Your task to perform on an android device: delete the emails in spam in the gmail app Image 0: 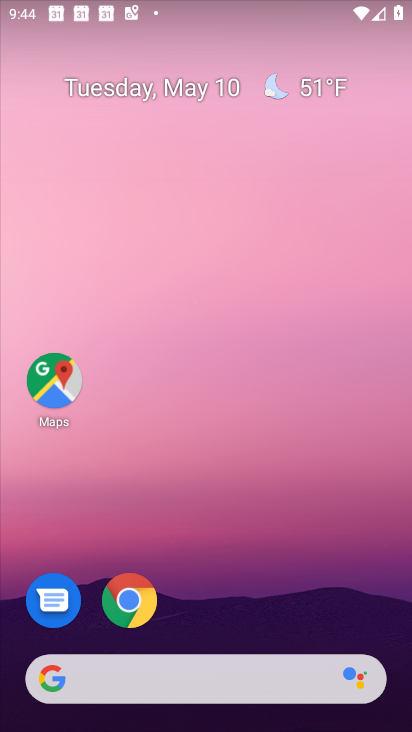
Step 0: drag from (221, 632) to (259, 7)
Your task to perform on an android device: delete the emails in spam in the gmail app Image 1: 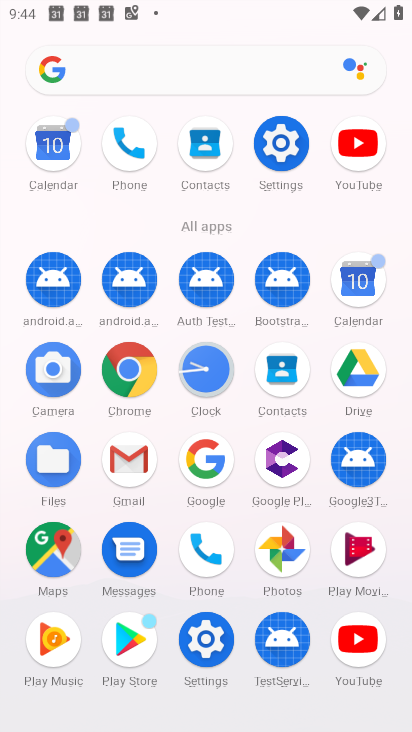
Step 1: click (115, 465)
Your task to perform on an android device: delete the emails in spam in the gmail app Image 2: 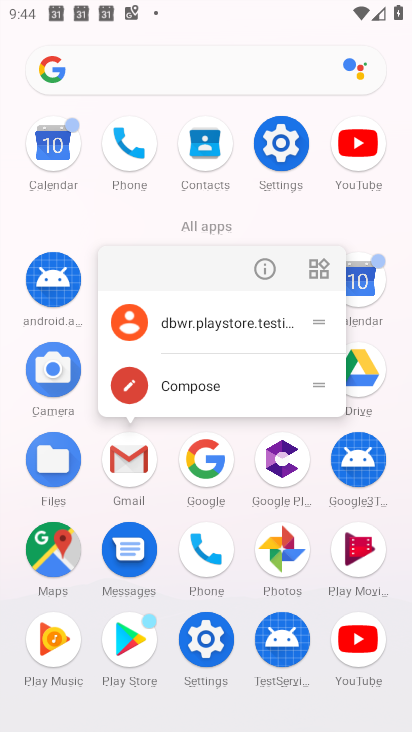
Step 2: click (126, 464)
Your task to perform on an android device: delete the emails in spam in the gmail app Image 3: 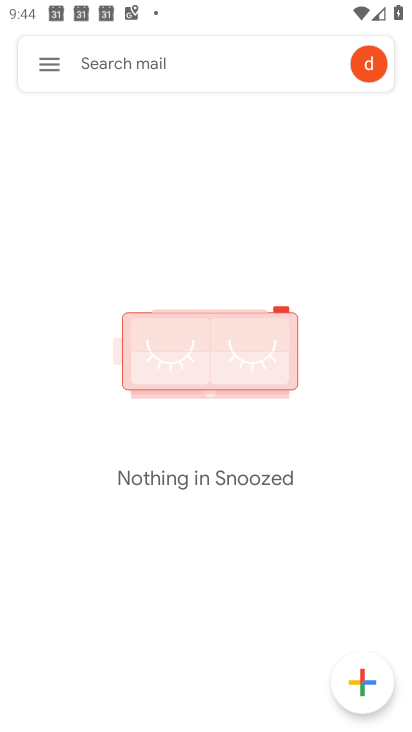
Step 3: click (46, 53)
Your task to perform on an android device: delete the emails in spam in the gmail app Image 4: 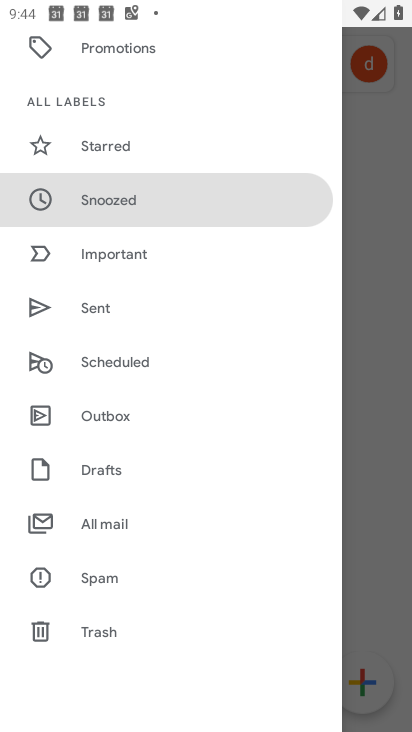
Step 4: click (121, 572)
Your task to perform on an android device: delete the emails in spam in the gmail app Image 5: 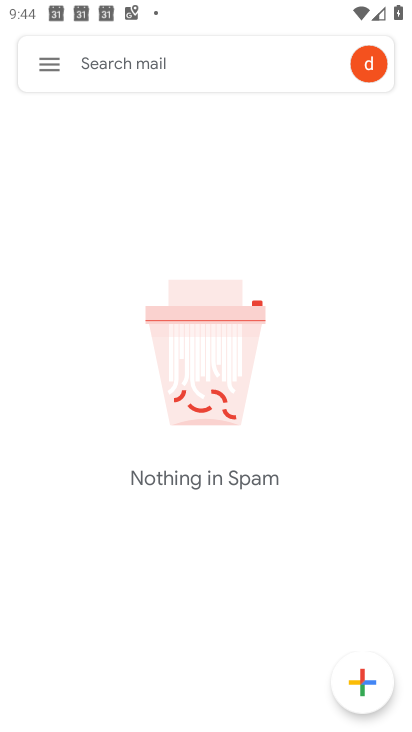
Step 5: task complete